Your task to perform on an android device: Go to settings Image 0: 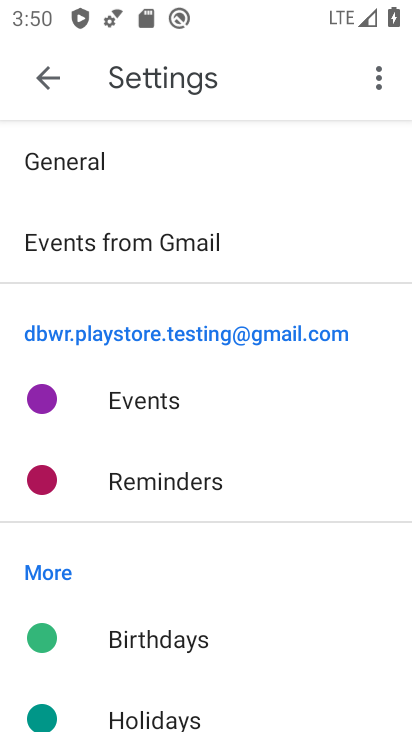
Step 0: press home button
Your task to perform on an android device: Go to settings Image 1: 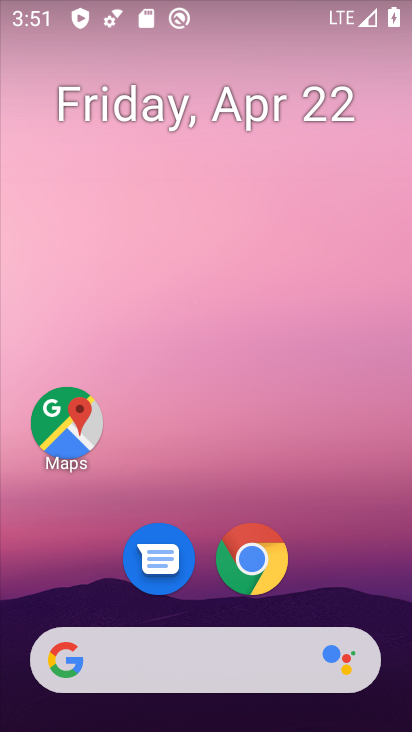
Step 1: drag from (318, 552) to (220, 56)
Your task to perform on an android device: Go to settings Image 2: 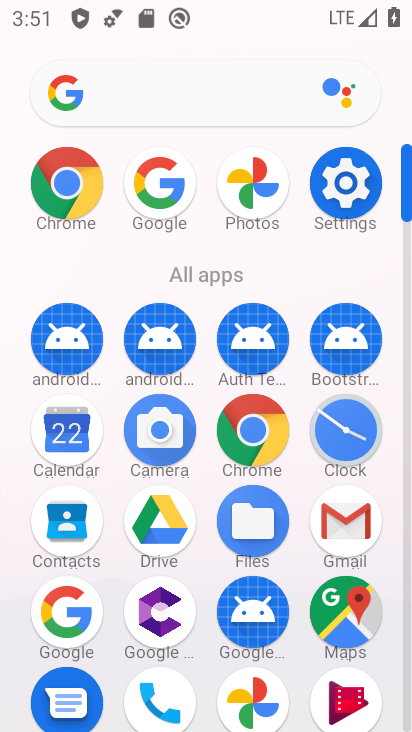
Step 2: click (342, 192)
Your task to perform on an android device: Go to settings Image 3: 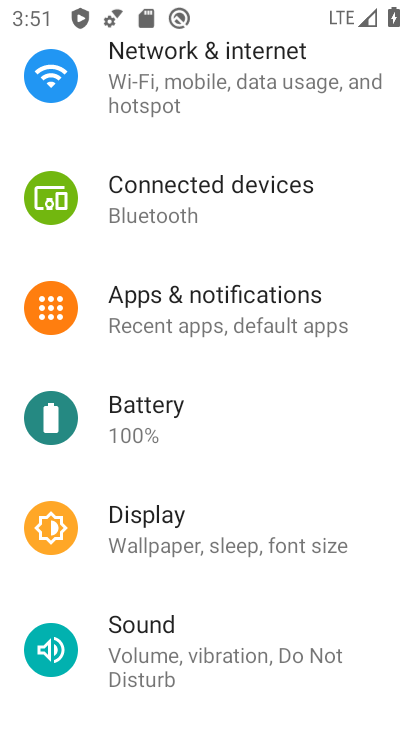
Step 3: task complete